Your task to perform on an android device: Open ESPN.com Image 0: 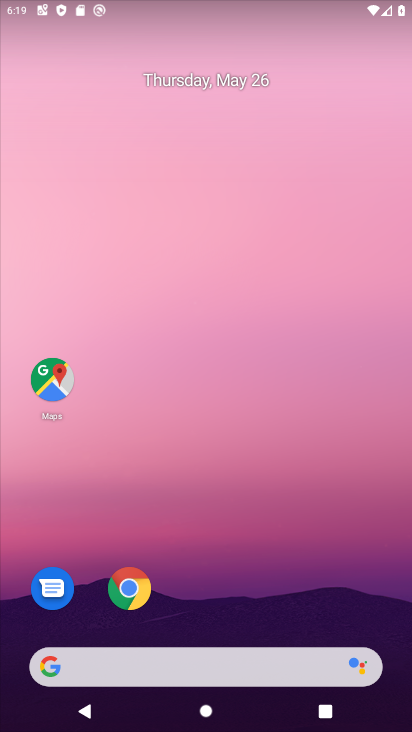
Step 0: drag from (330, 608) to (329, 353)
Your task to perform on an android device: Open ESPN.com Image 1: 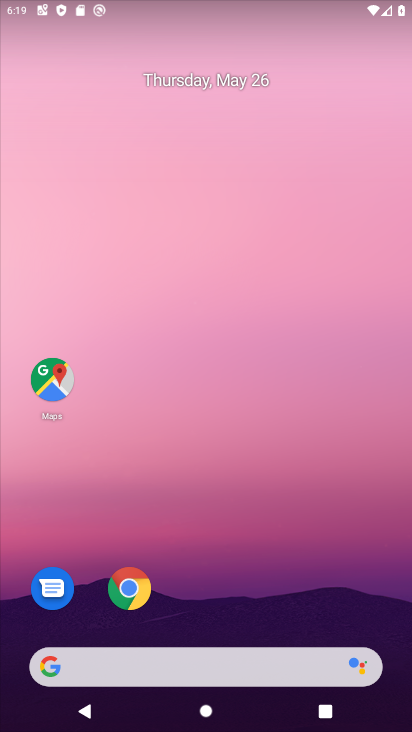
Step 1: drag from (275, 606) to (338, 166)
Your task to perform on an android device: Open ESPN.com Image 2: 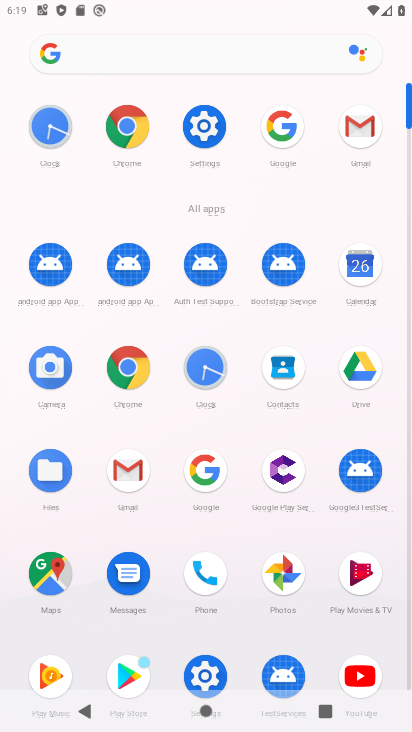
Step 2: click (215, 487)
Your task to perform on an android device: Open ESPN.com Image 3: 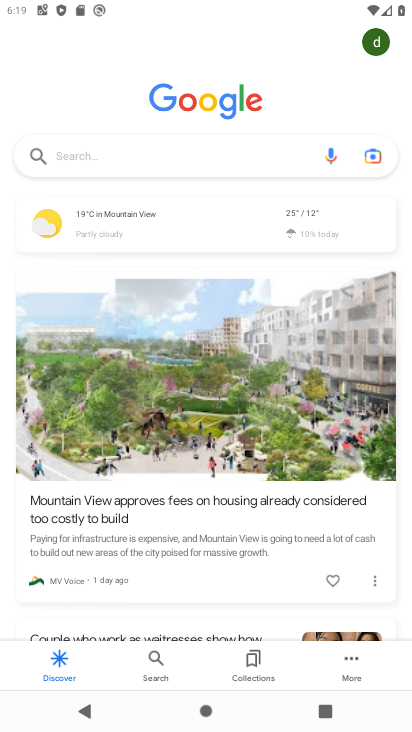
Step 3: click (172, 167)
Your task to perform on an android device: Open ESPN.com Image 4: 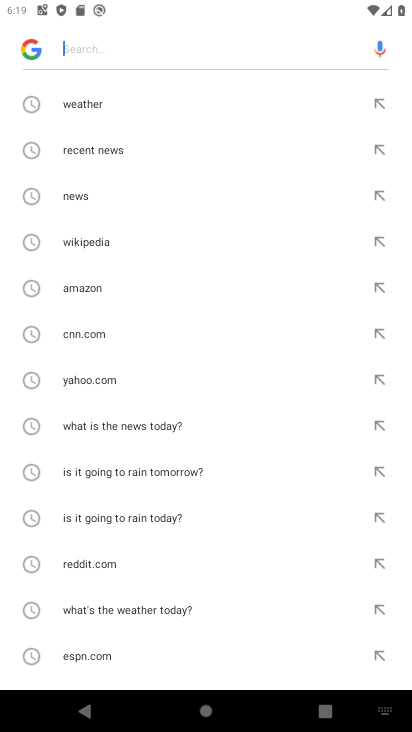
Step 4: click (98, 655)
Your task to perform on an android device: Open ESPN.com Image 5: 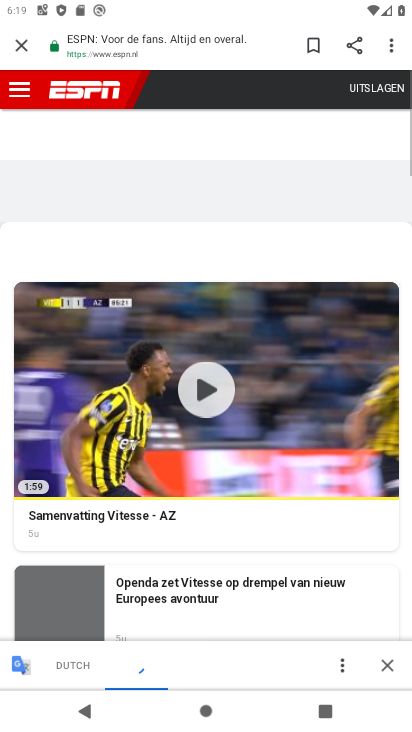
Step 5: task complete